Your task to perform on an android device: Open calendar and show me the fourth week of next month Image 0: 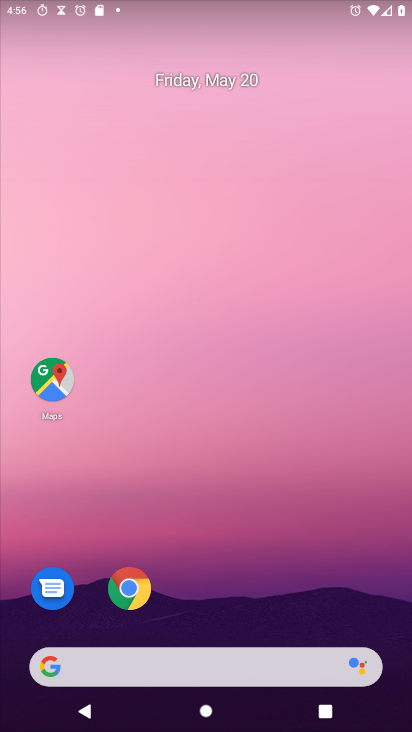
Step 0: drag from (295, 575) to (299, 98)
Your task to perform on an android device: Open calendar and show me the fourth week of next month Image 1: 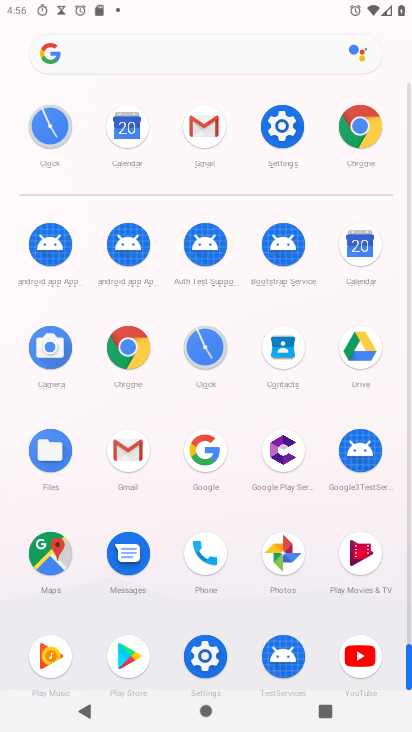
Step 1: click (366, 249)
Your task to perform on an android device: Open calendar and show me the fourth week of next month Image 2: 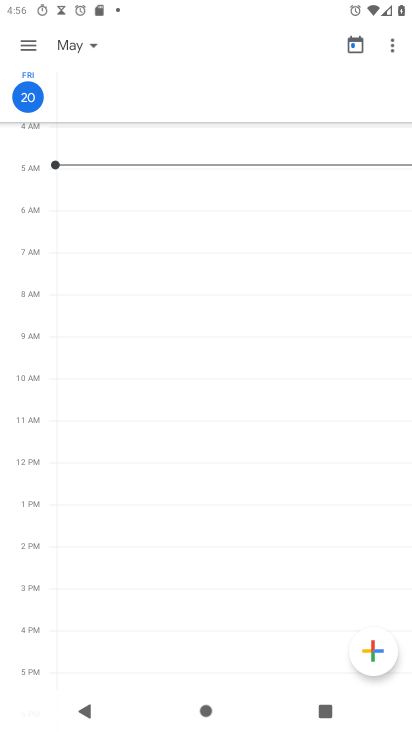
Step 2: click (70, 40)
Your task to perform on an android device: Open calendar and show me the fourth week of next month Image 3: 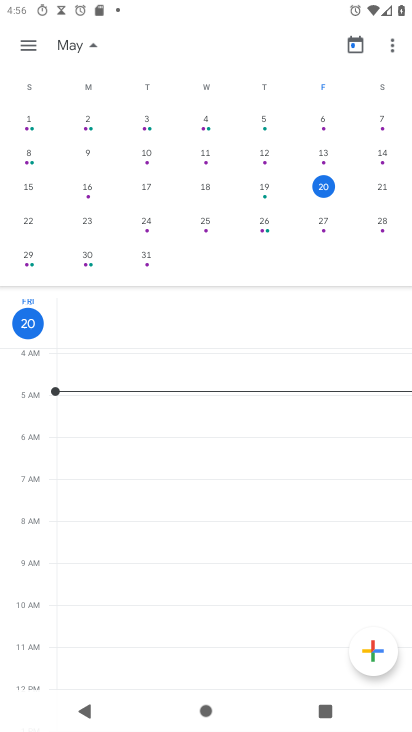
Step 3: drag from (330, 155) to (3, 170)
Your task to perform on an android device: Open calendar and show me the fourth week of next month Image 4: 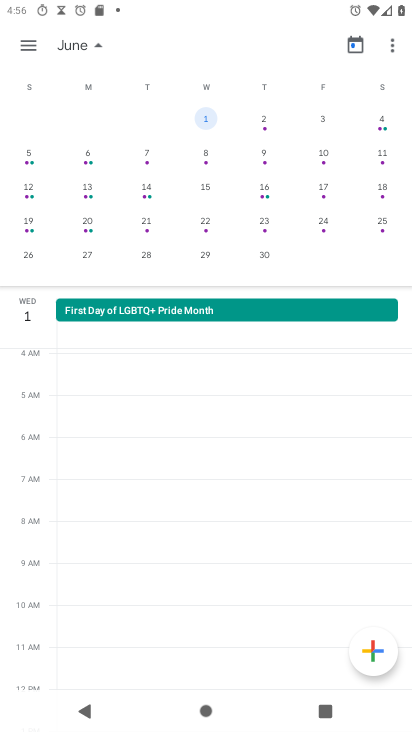
Step 4: click (202, 252)
Your task to perform on an android device: Open calendar and show me the fourth week of next month Image 5: 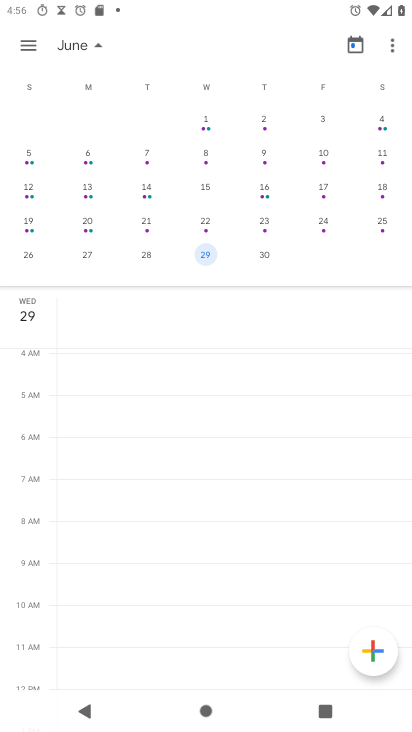
Step 5: task complete